Your task to perform on an android device: Check the weather Image 0: 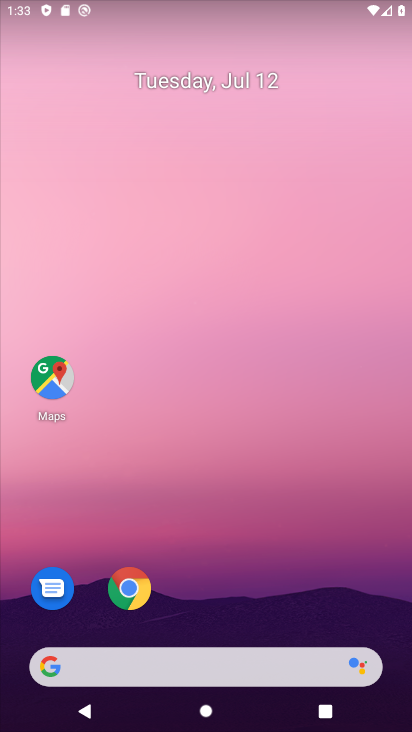
Step 0: click (159, 669)
Your task to perform on an android device: Check the weather Image 1: 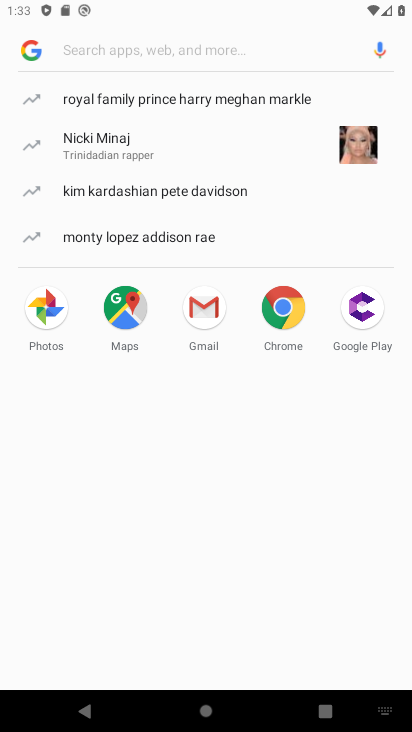
Step 1: type "weather"
Your task to perform on an android device: Check the weather Image 2: 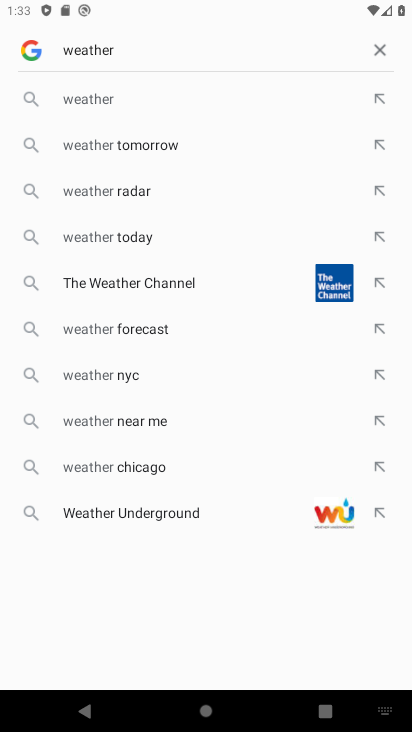
Step 2: click (112, 111)
Your task to perform on an android device: Check the weather Image 3: 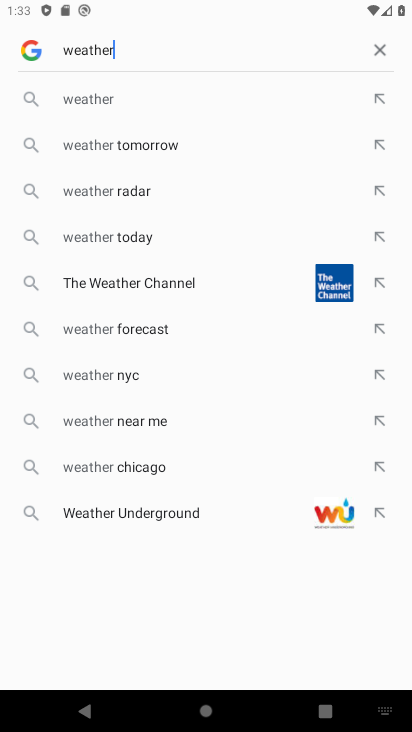
Step 3: click (112, 111)
Your task to perform on an android device: Check the weather Image 4: 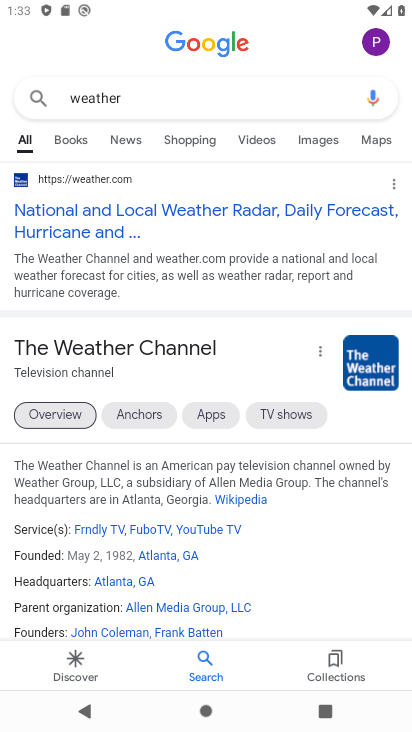
Step 4: task complete